Your task to perform on an android device: Add "razer nari" to the cart on amazon, then select checkout. Image 0: 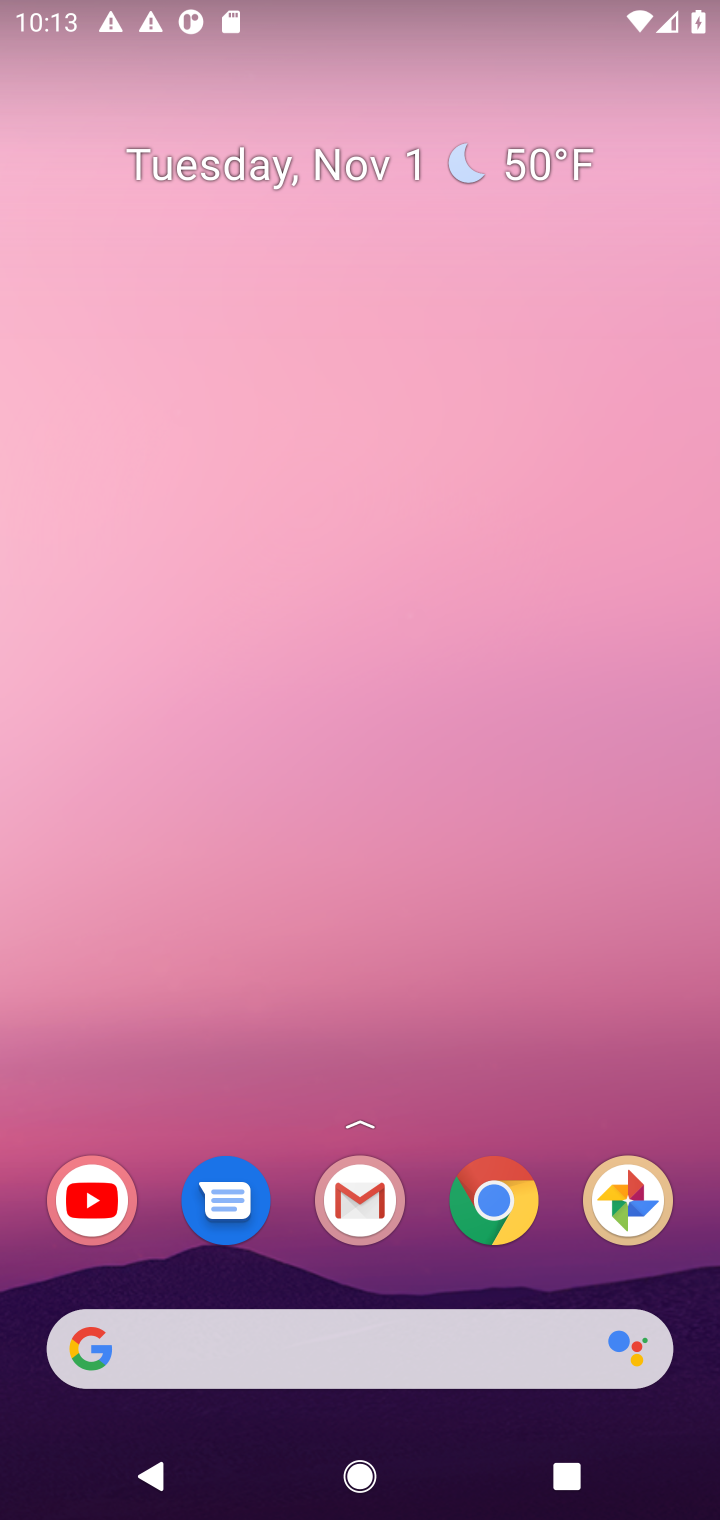
Step 0: click (298, 1366)
Your task to perform on an android device: Add "razer nari" to the cart on amazon, then select checkout. Image 1: 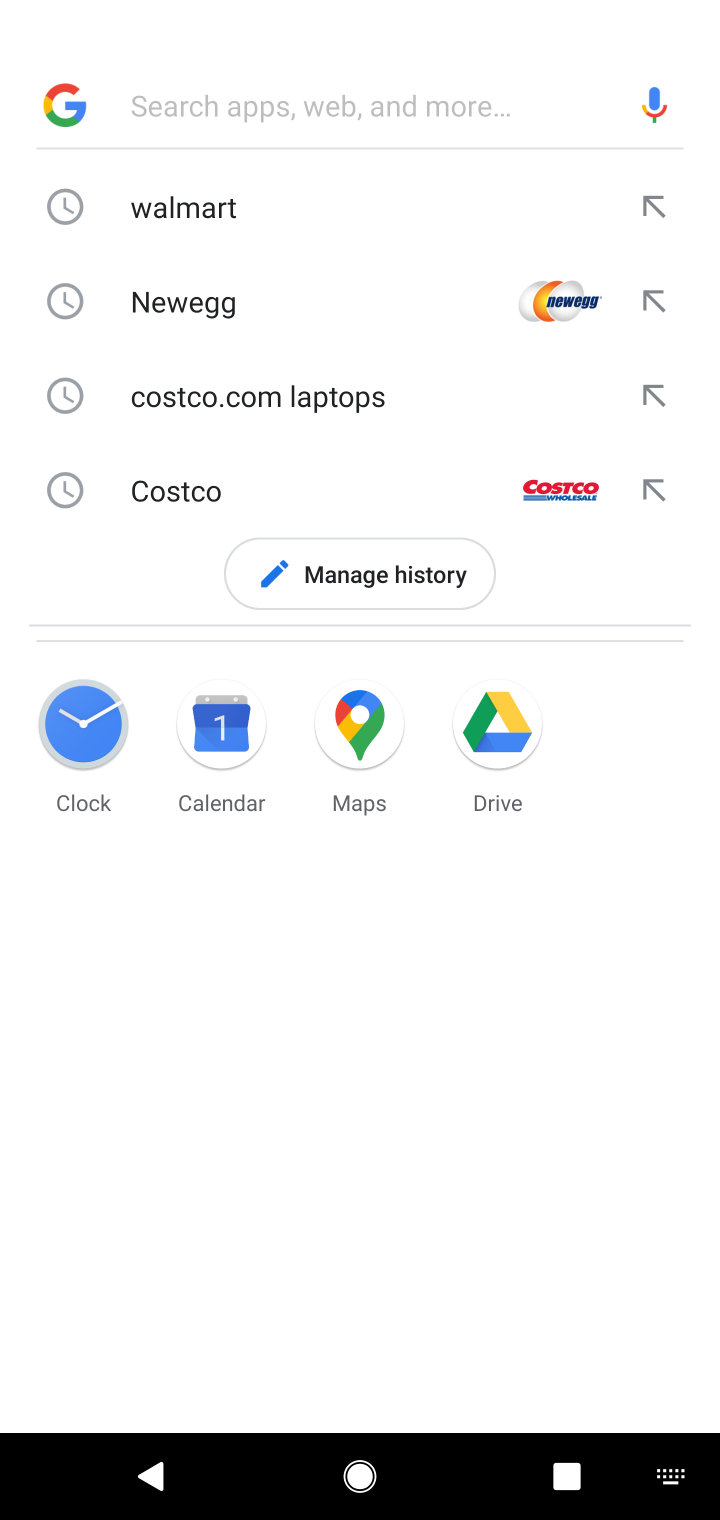
Step 1: type " amazon"
Your task to perform on an android device: Add "razer nari" to the cart on amazon, then select checkout. Image 2: 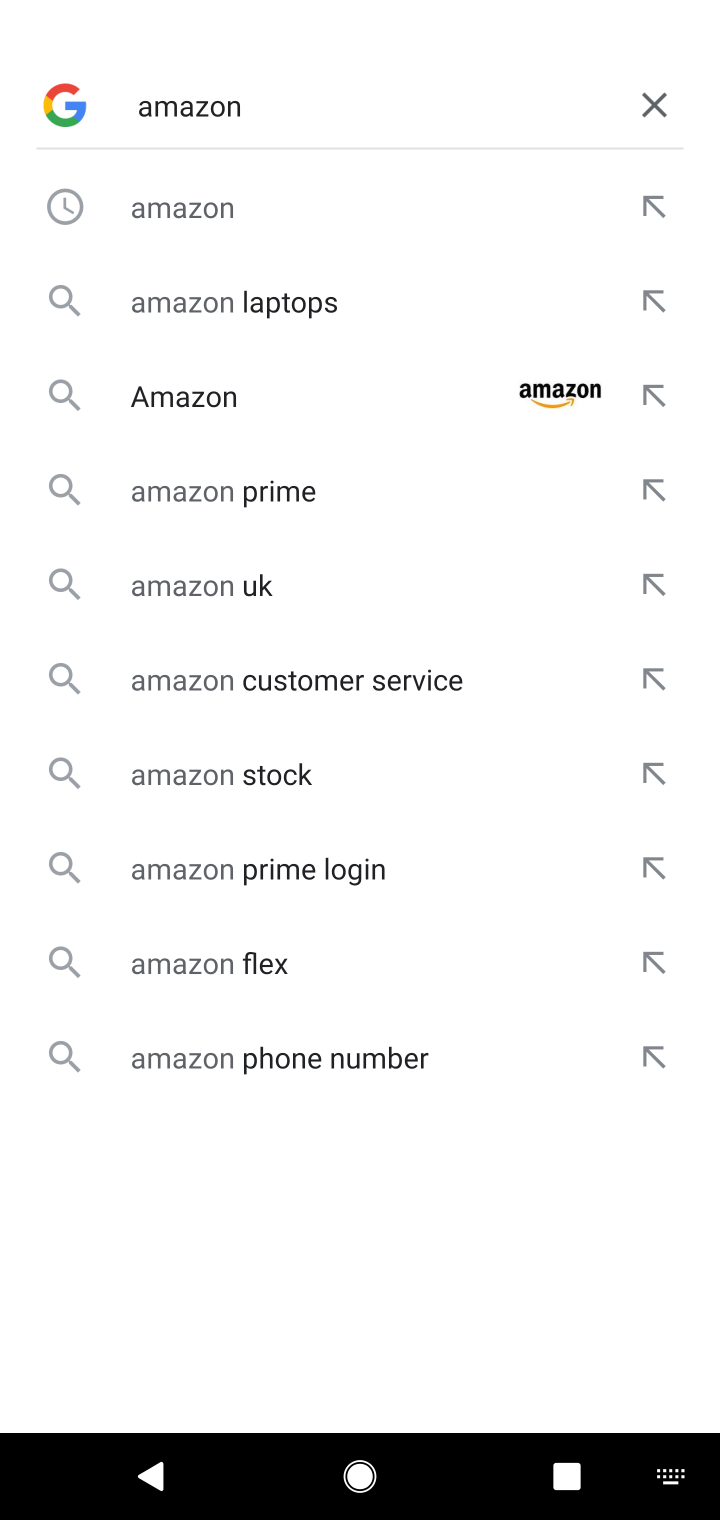
Step 2: type ""
Your task to perform on an android device: Add "razer nari" to the cart on amazon, then select checkout. Image 3: 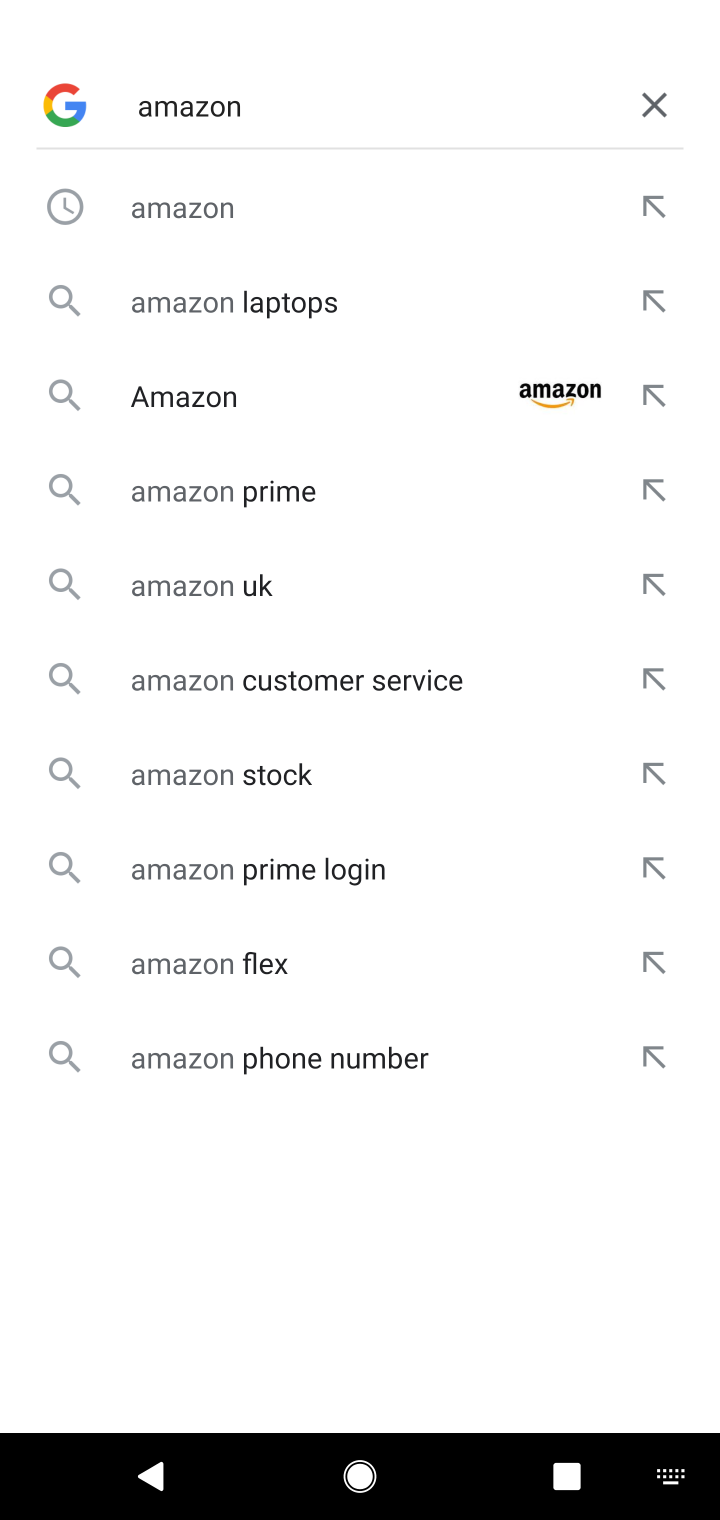
Step 3: click (198, 209)
Your task to perform on an android device: Add "razer nari" to the cart on amazon, then select checkout. Image 4: 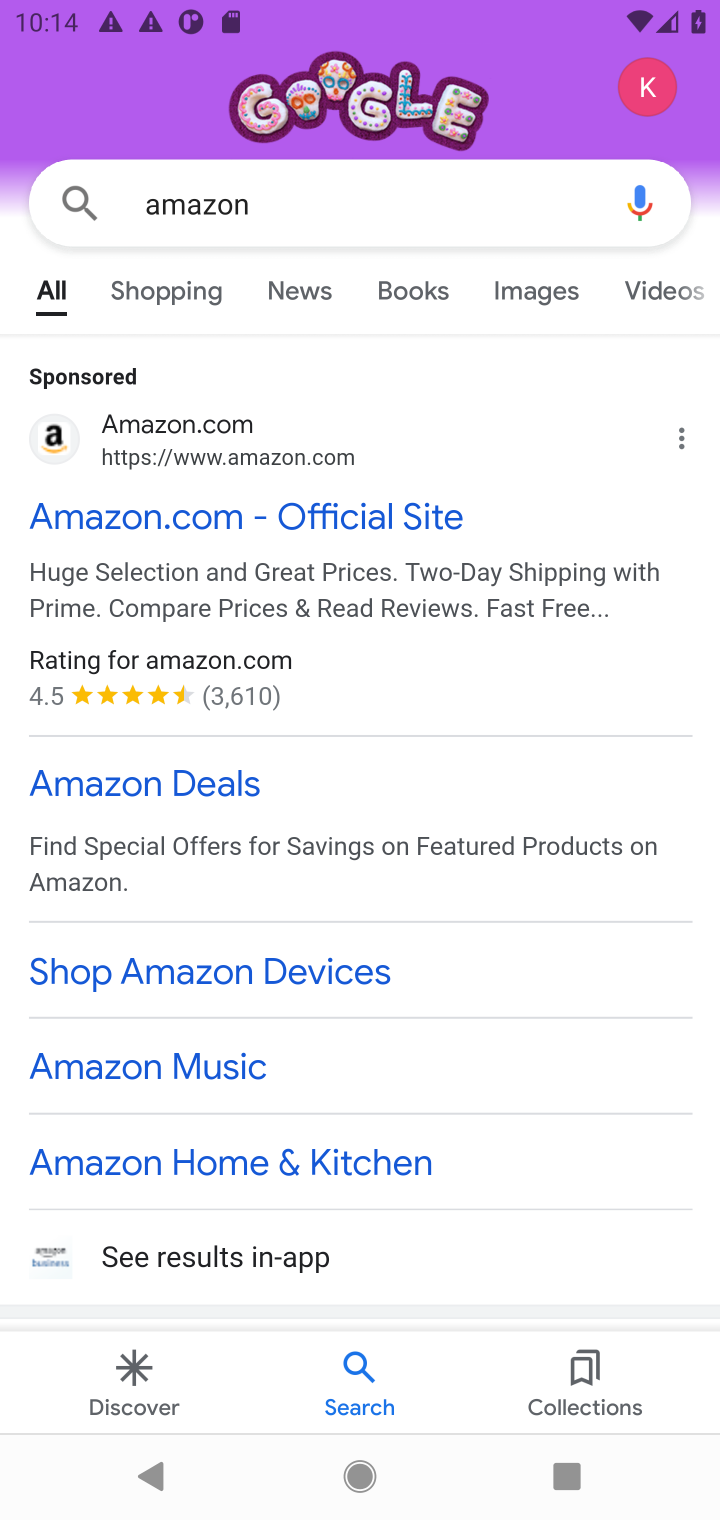
Step 4: click (214, 518)
Your task to perform on an android device: Add "razer nari" to the cart on amazon, then select checkout. Image 5: 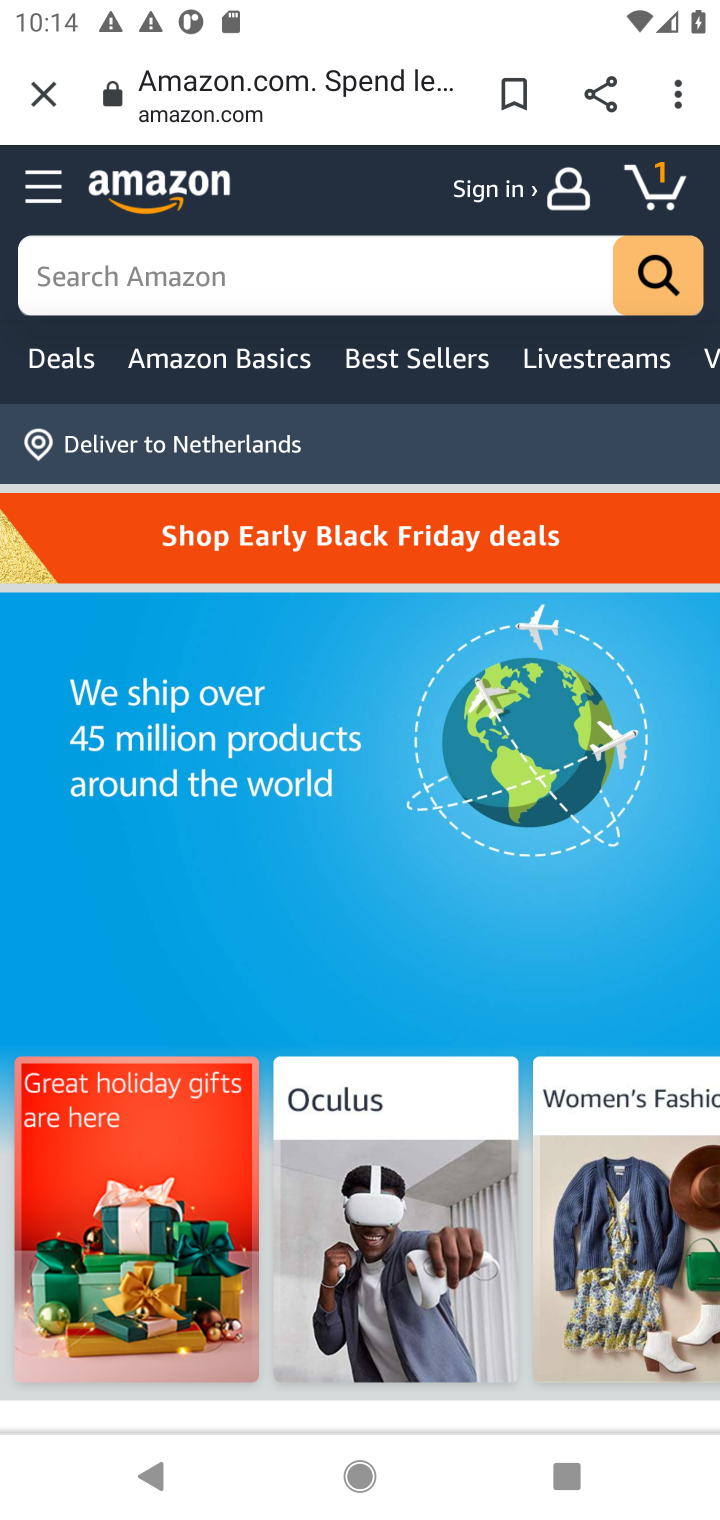
Step 5: click (273, 278)
Your task to perform on an android device: Add "razer nari" to the cart on amazon, then select checkout. Image 6: 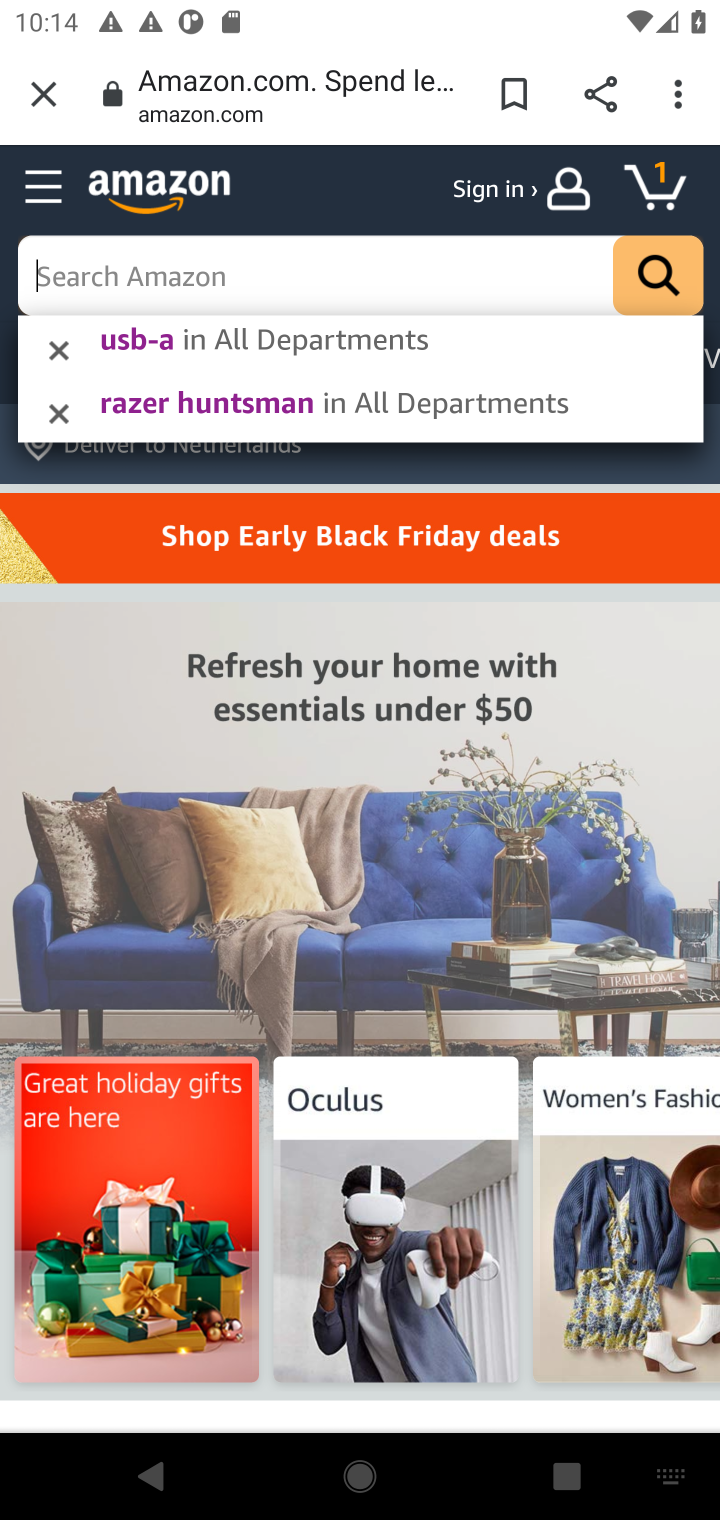
Step 6: type "razer nari"
Your task to perform on an android device: Add "razer nari" to the cart on amazon, then select checkout. Image 7: 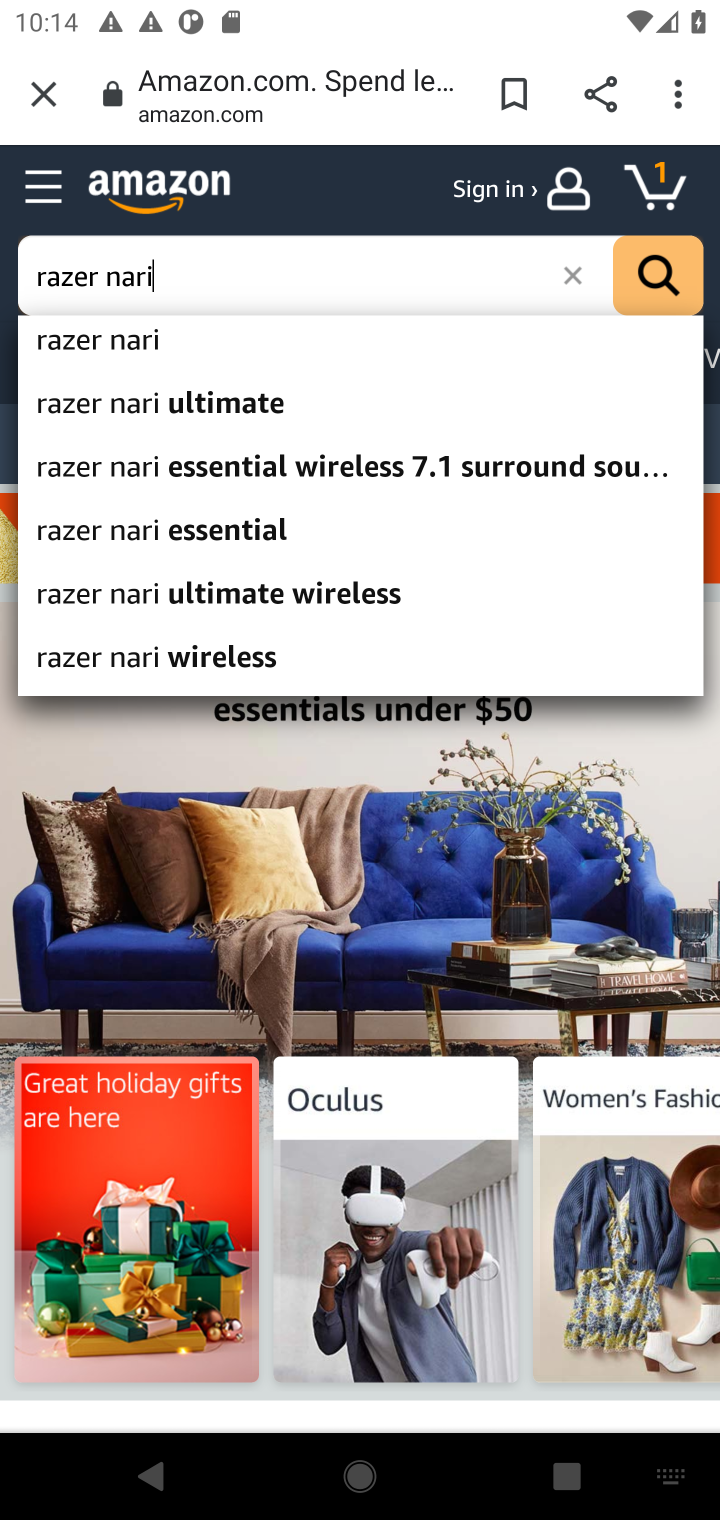
Step 7: click (190, 335)
Your task to perform on an android device: Add "razer nari" to the cart on amazon, then select checkout. Image 8: 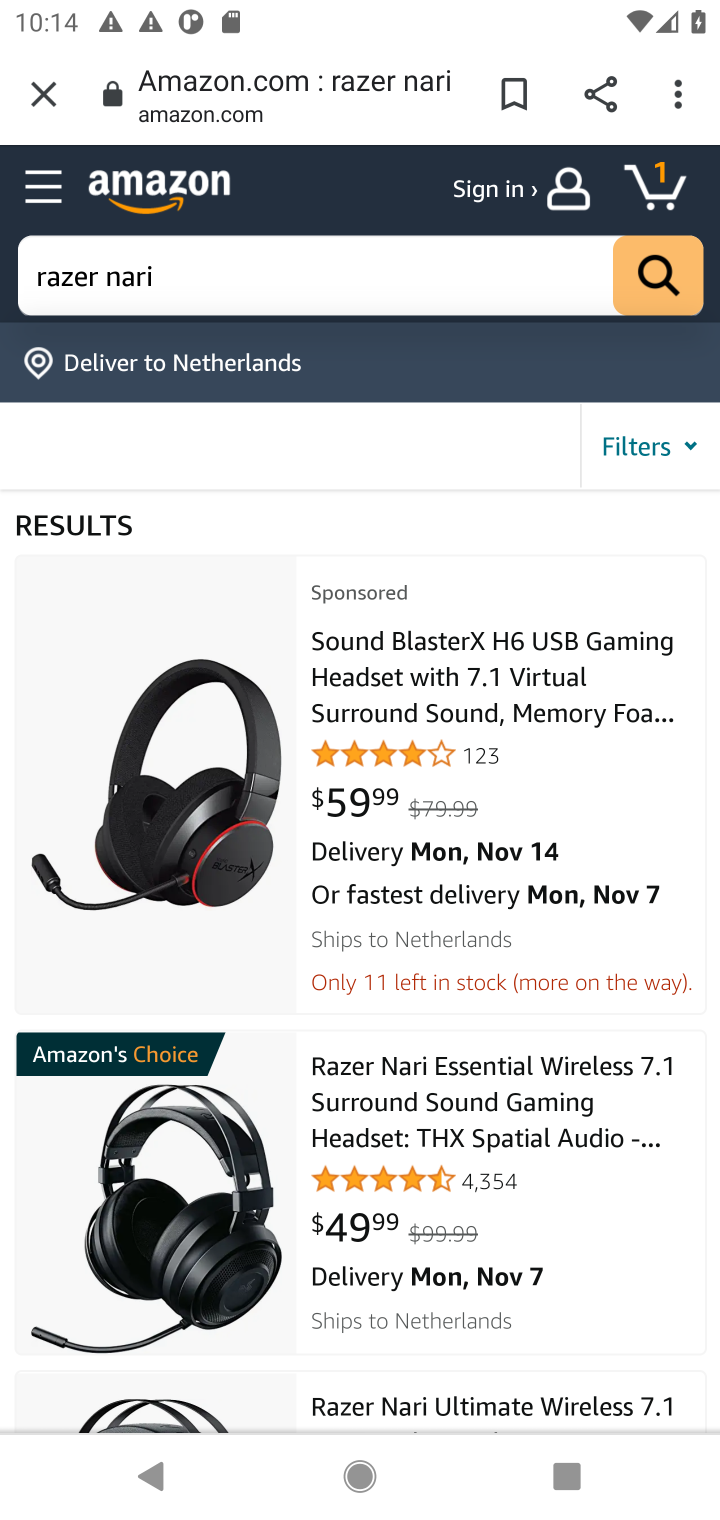
Step 8: click (518, 697)
Your task to perform on an android device: Add "razer nari" to the cart on amazon, then select checkout. Image 9: 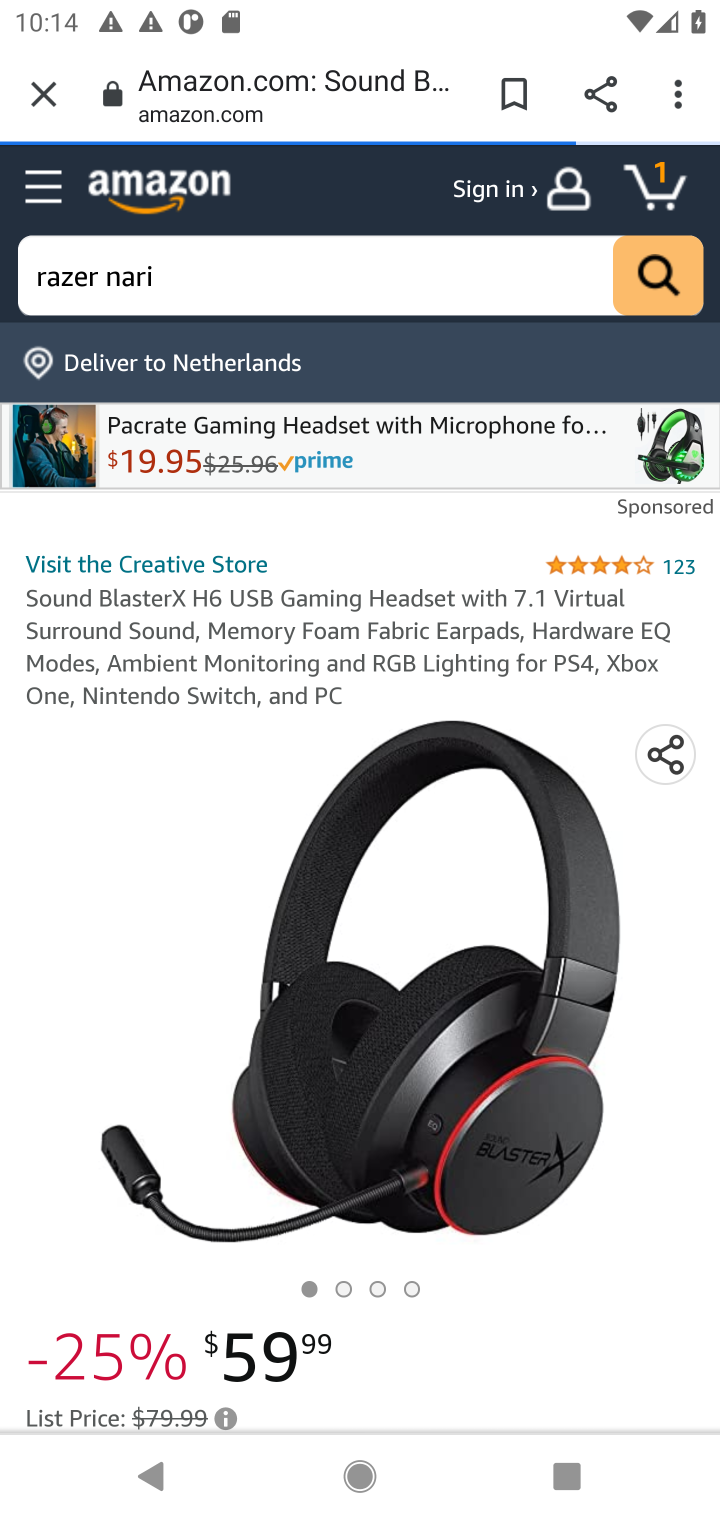
Step 9: drag from (303, 1081) to (342, 695)
Your task to perform on an android device: Add "razer nari" to the cart on amazon, then select checkout. Image 10: 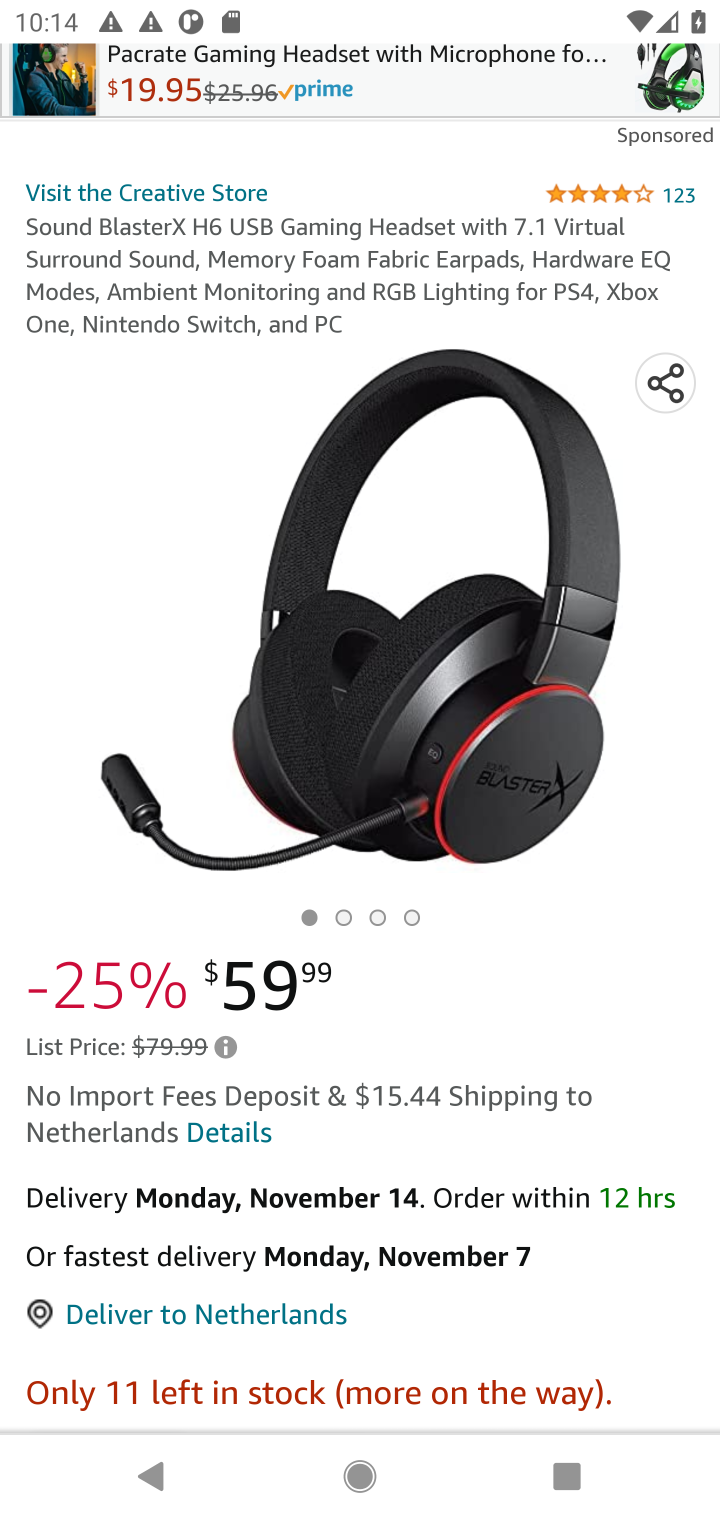
Step 10: drag from (438, 880) to (439, 685)
Your task to perform on an android device: Add "razer nari" to the cart on amazon, then select checkout. Image 11: 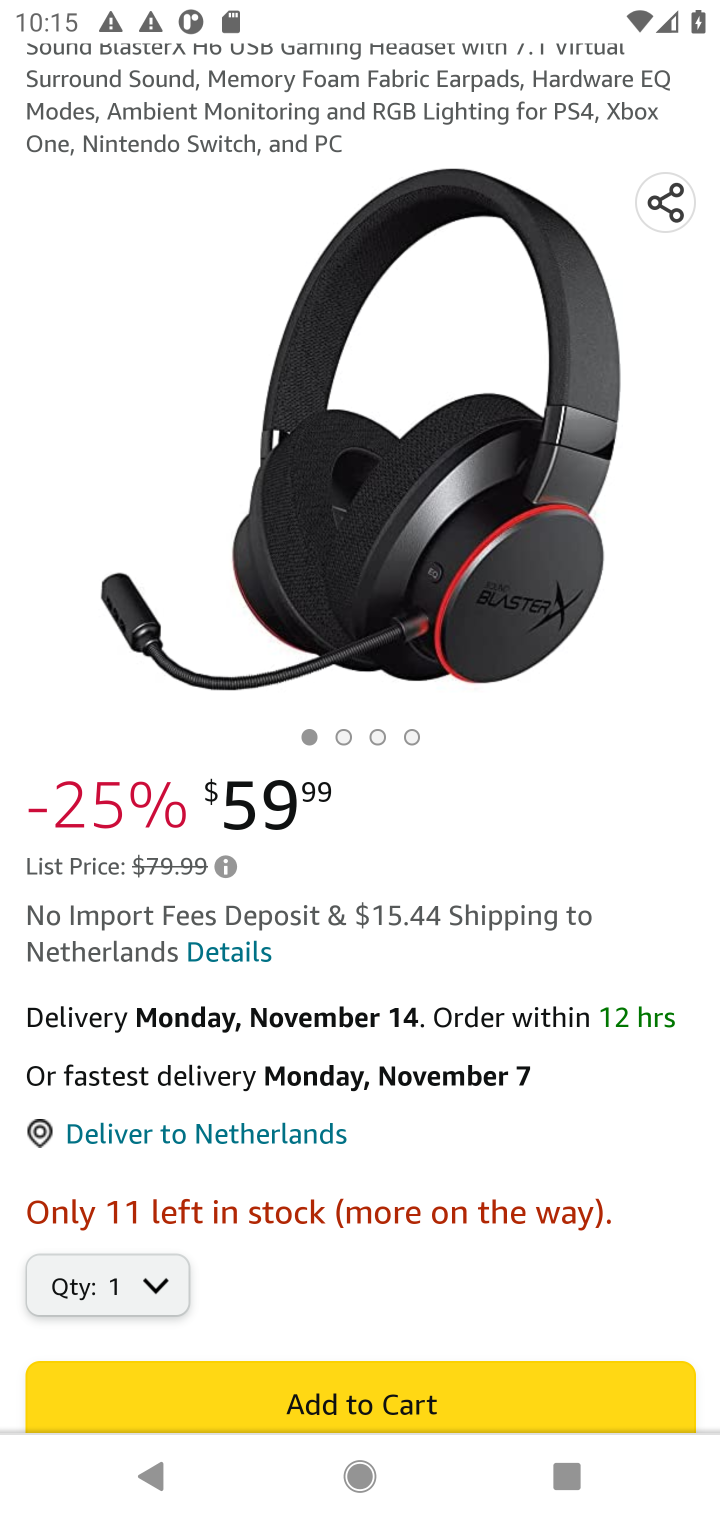
Step 11: drag from (530, 1011) to (512, 491)
Your task to perform on an android device: Add "razer nari" to the cart on amazon, then select checkout. Image 12: 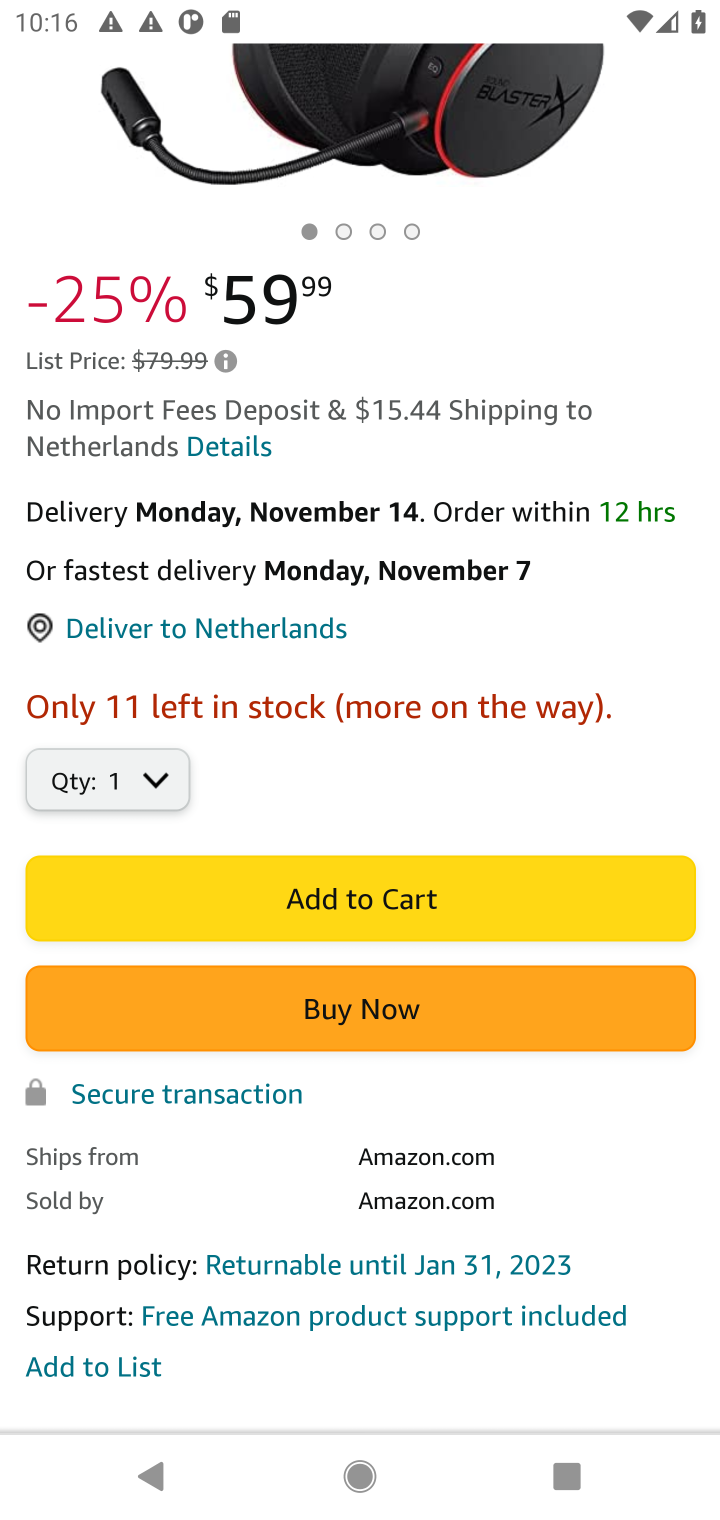
Step 12: click (352, 894)
Your task to perform on an android device: Add "razer nari" to the cart on amazon, then select checkout. Image 13: 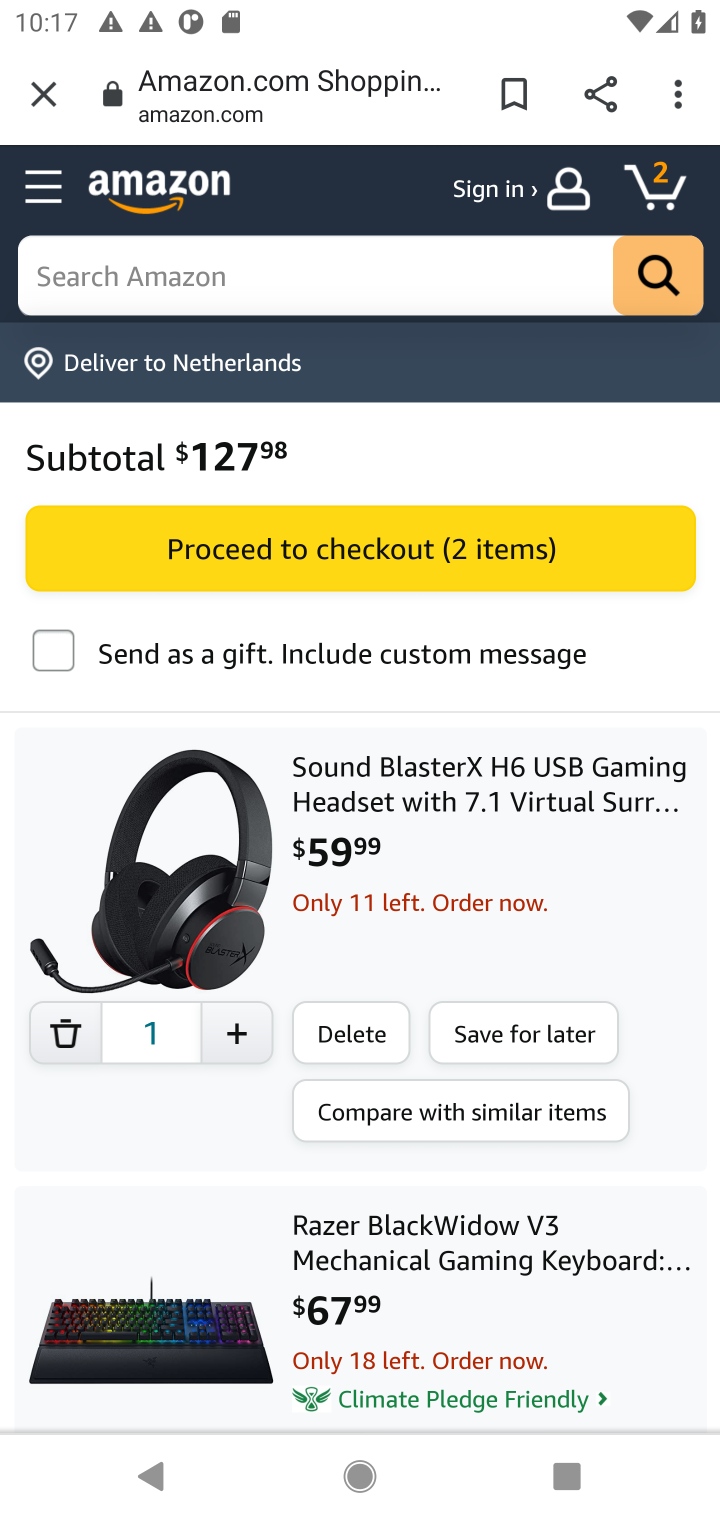
Step 13: drag from (457, 929) to (447, 616)
Your task to perform on an android device: Add "razer nari" to the cart on amazon, then select checkout. Image 14: 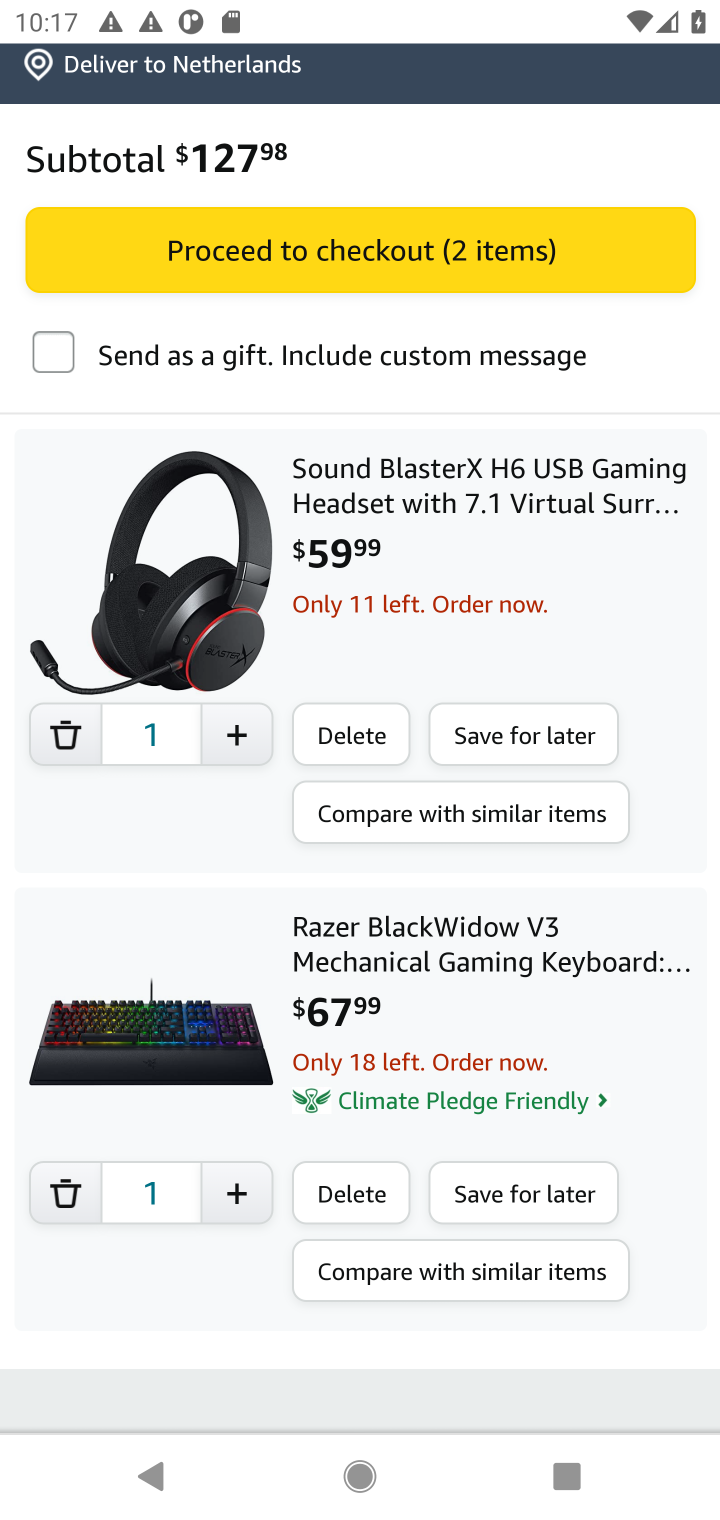
Step 14: drag from (361, 517) to (440, 917)
Your task to perform on an android device: Add "razer nari" to the cart on amazon, then select checkout. Image 15: 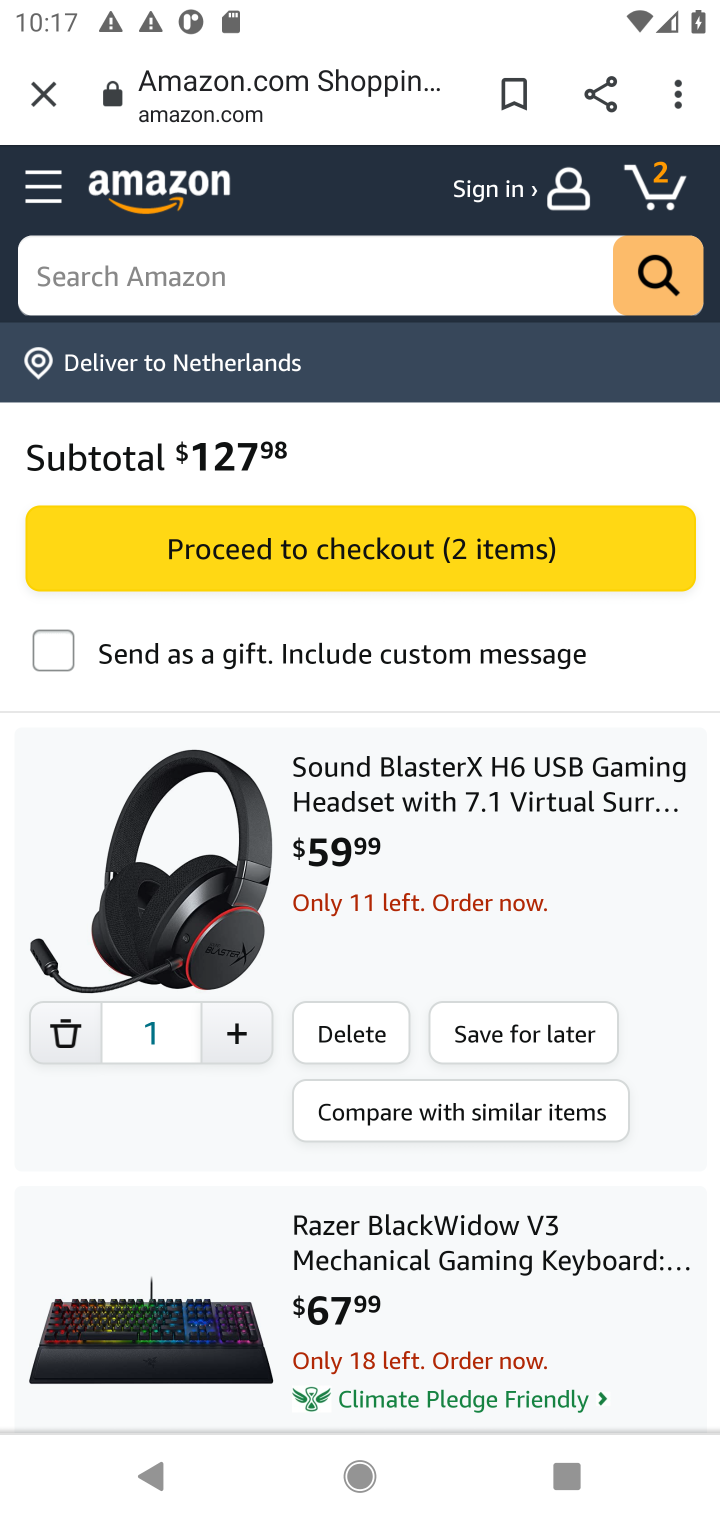
Step 15: click (288, 303)
Your task to perform on an android device: Add "razer nari" to the cart on amazon, then select checkout. Image 16: 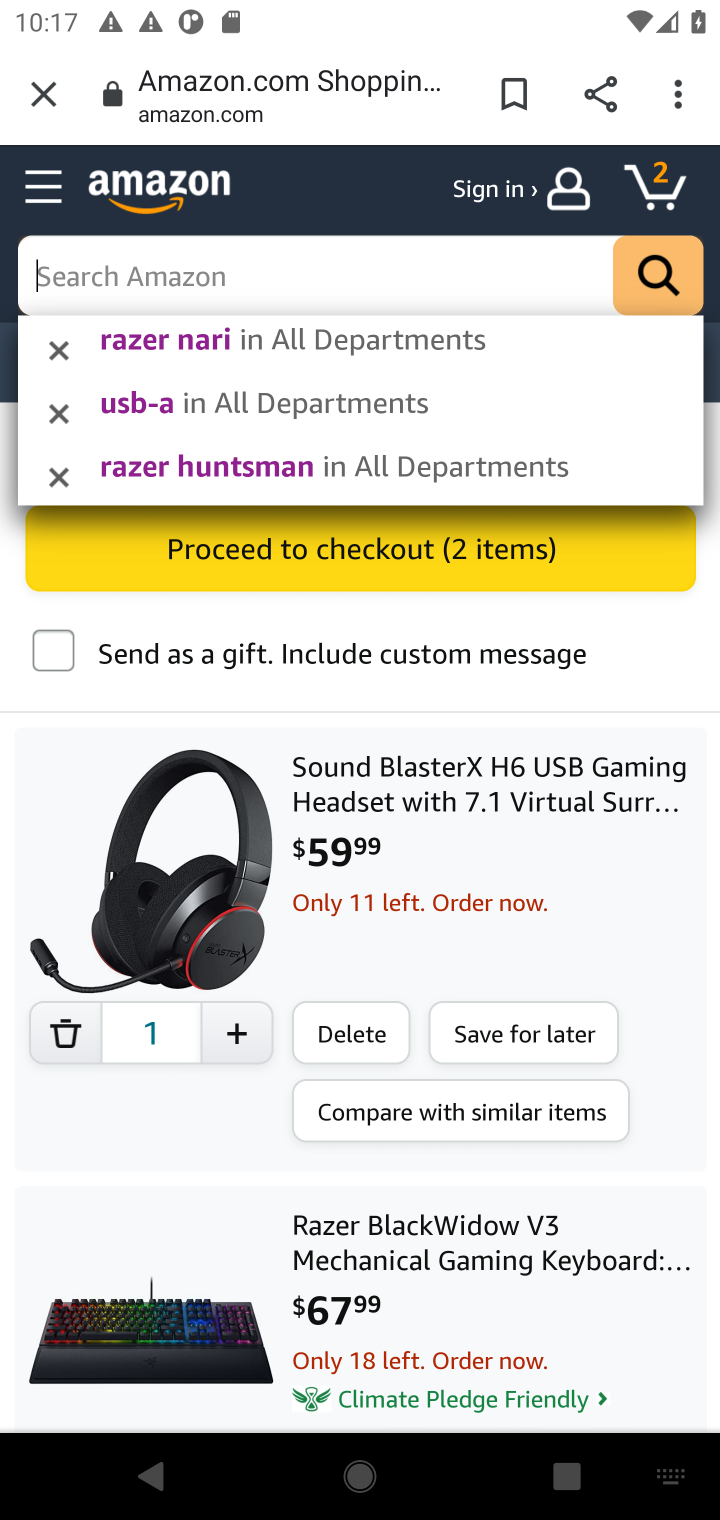
Step 16: type "razer nari"
Your task to perform on an android device: Add "razer nari" to the cart on amazon, then select checkout. Image 17: 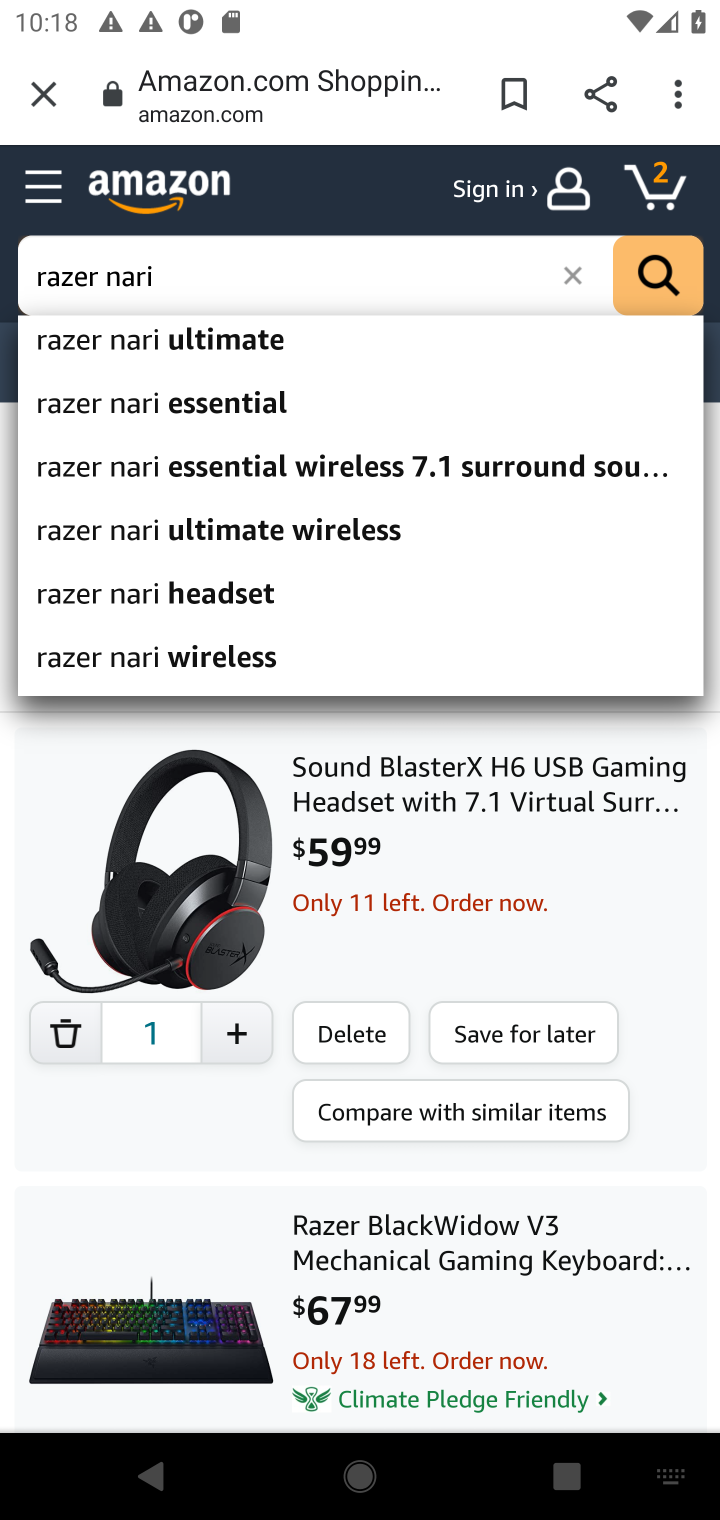
Step 17: click (630, 281)
Your task to perform on an android device: Add "razer nari" to the cart on amazon, then select checkout. Image 18: 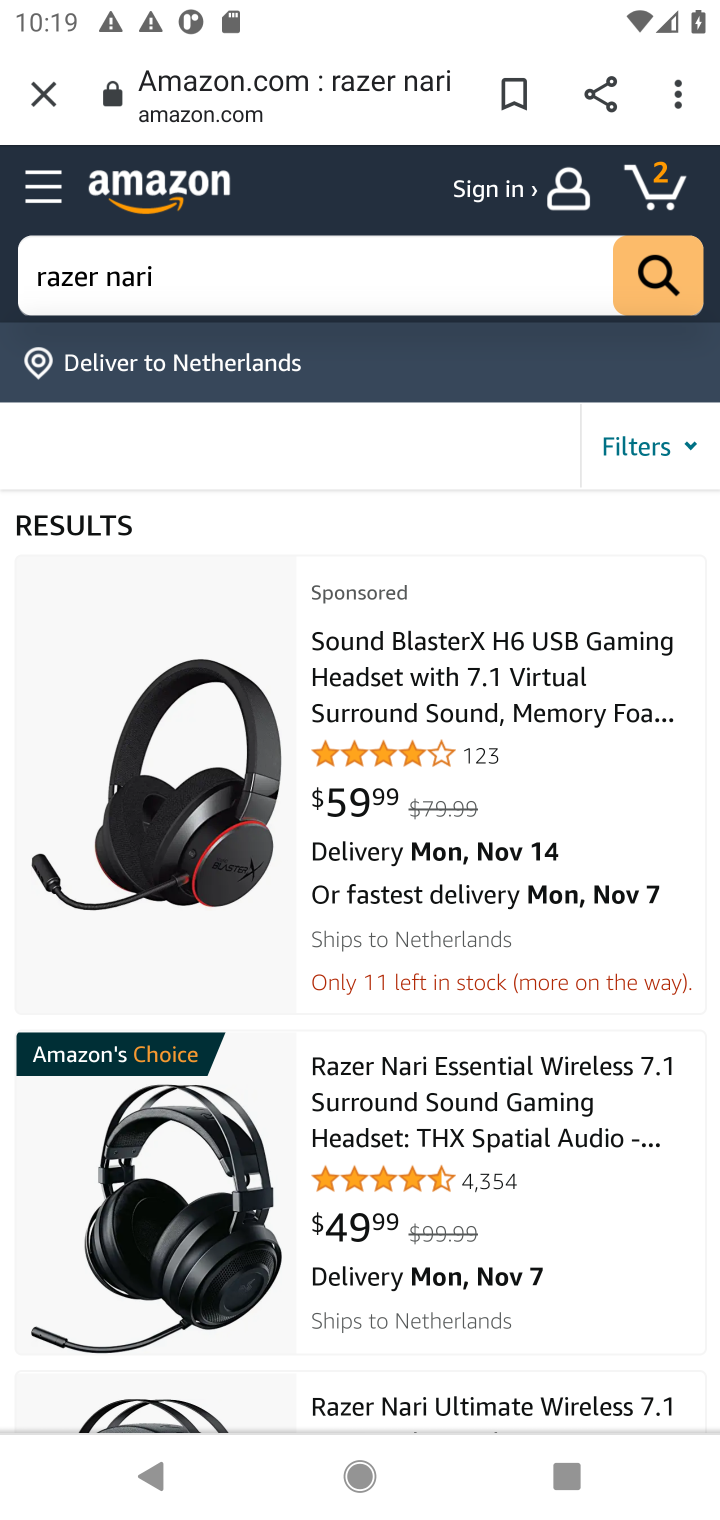
Step 18: click (489, 702)
Your task to perform on an android device: Add "razer nari" to the cart on amazon, then select checkout. Image 19: 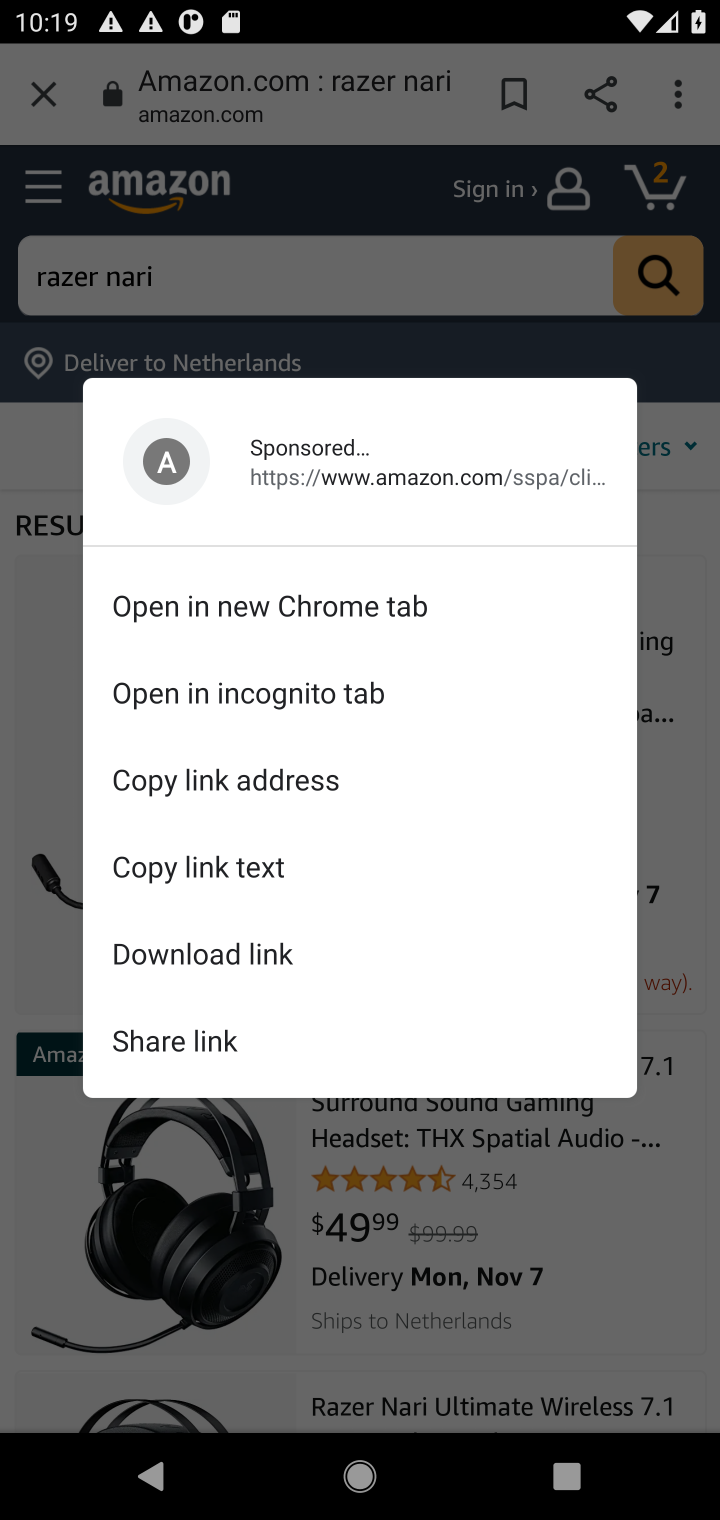
Step 19: click (646, 1251)
Your task to perform on an android device: Add "razer nari" to the cart on amazon, then select checkout. Image 20: 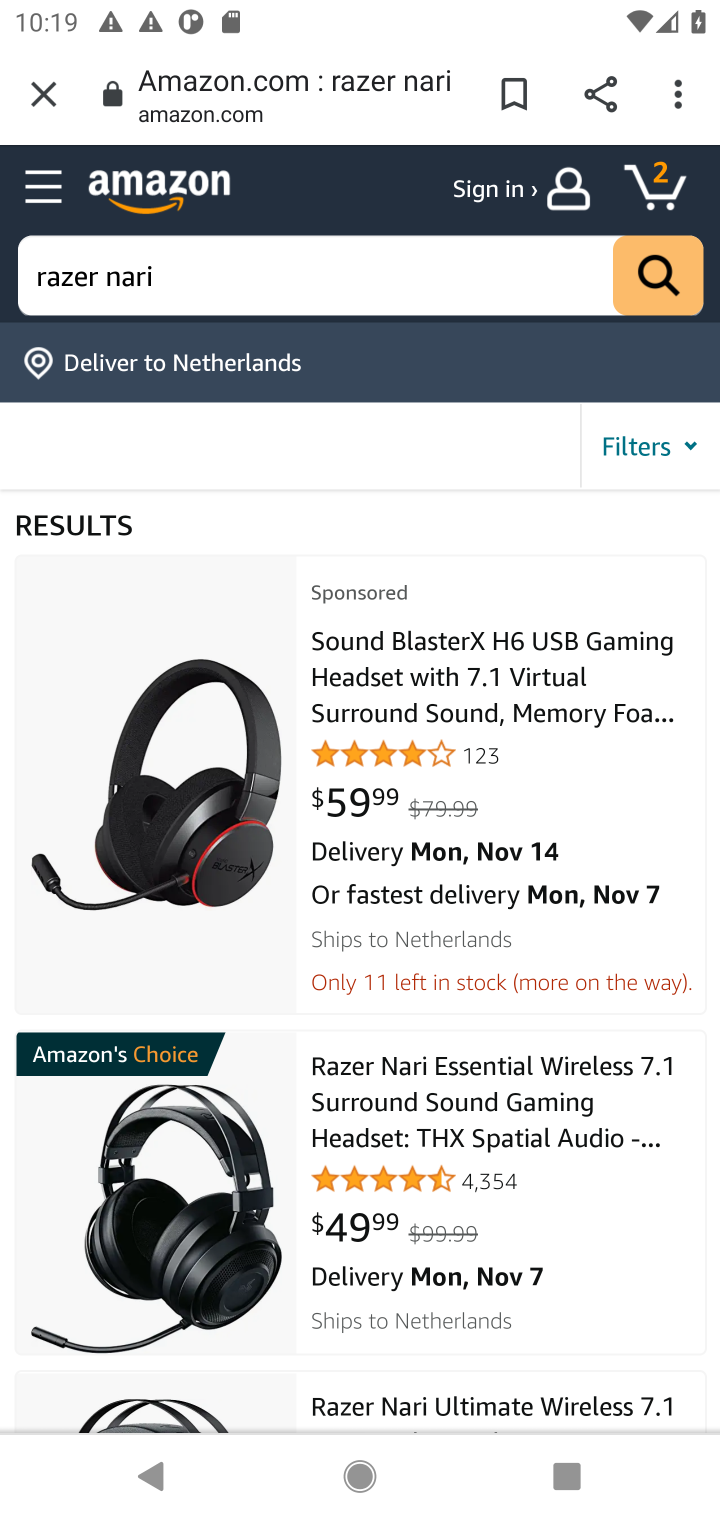
Step 20: click (642, 647)
Your task to perform on an android device: Add "razer nari" to the cart on amazon, then select checkout. Image 21: 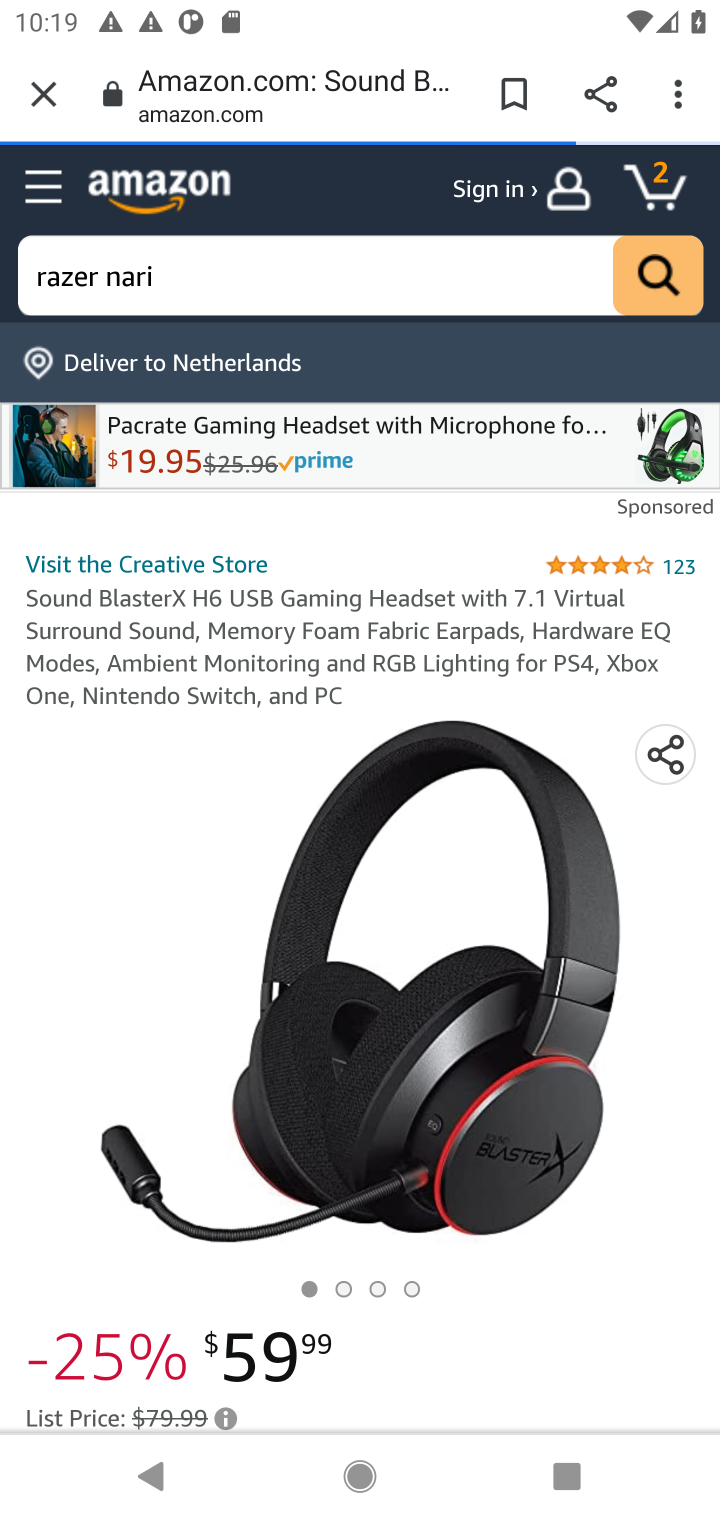
Step 21: drag from (599, 996) to (559, 601)
Your task to perform on an android device: Add "razer nari" to the cart on amazon, then select checkout. Image 22: 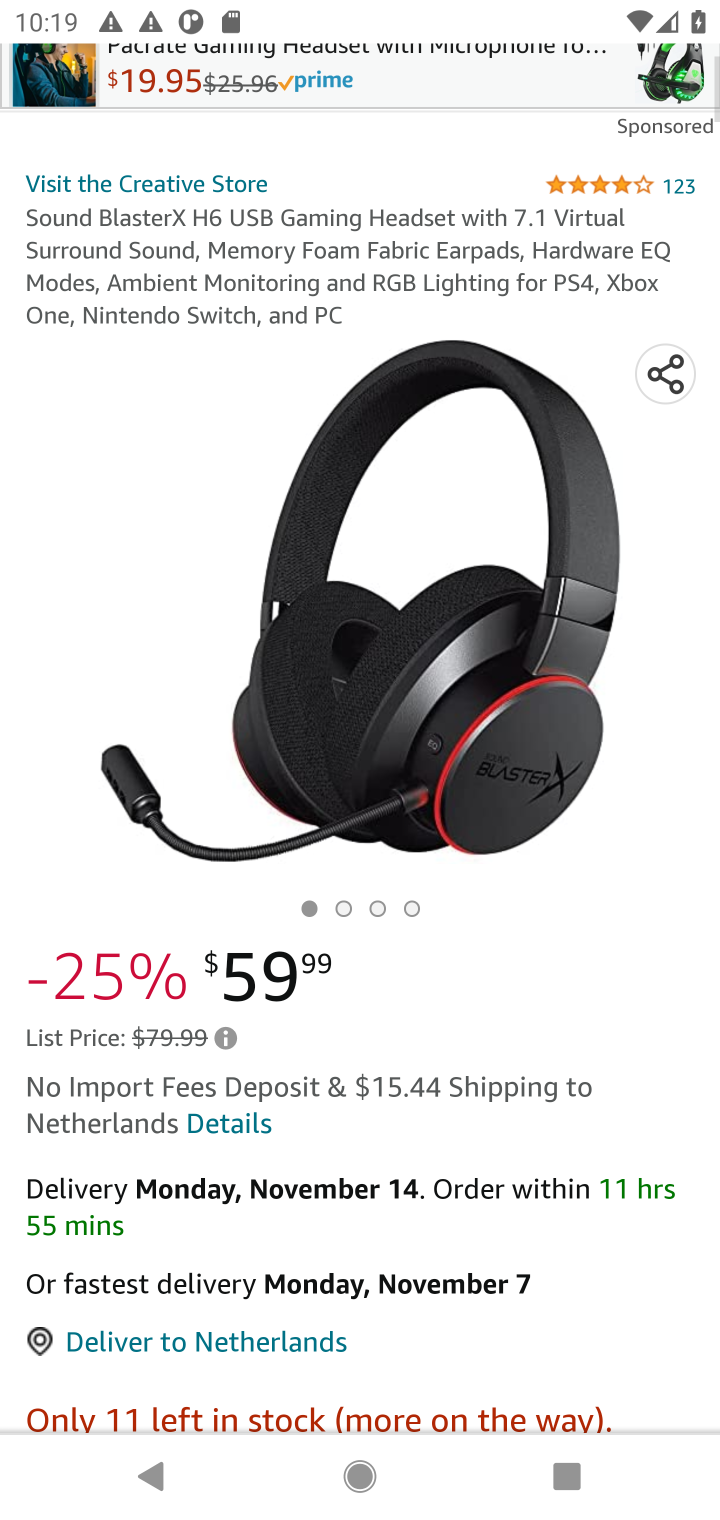
Step 22: drag from (487, 897) to (463, 499)
Your task to perform on an android device: Add "razer nari" to the cart on amazon, then select checkout. Image 23: 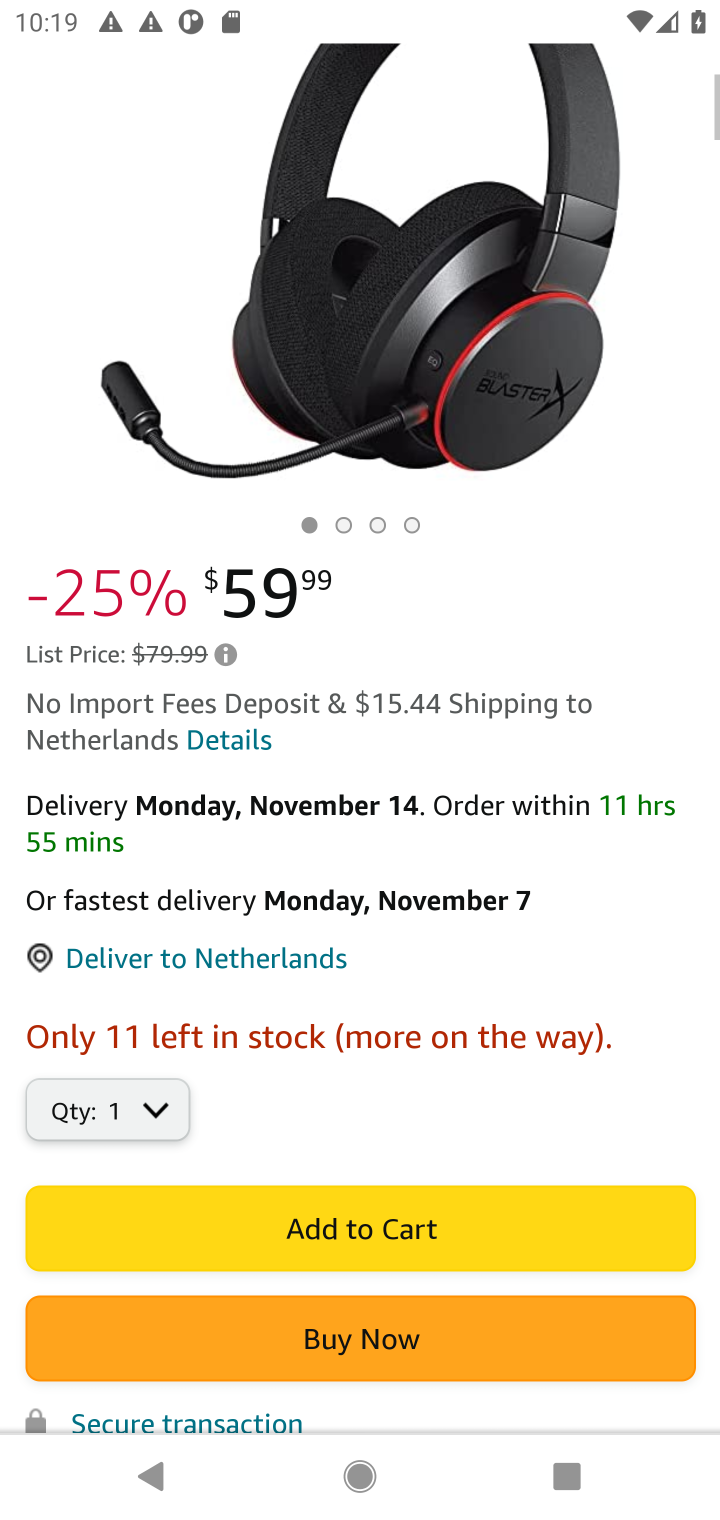
Step 23: drag from (414, 676) to (422, 465)
Your task to perform on an android device: Add "razer nari" to the cart on amazon, then select checkout. Image 24: 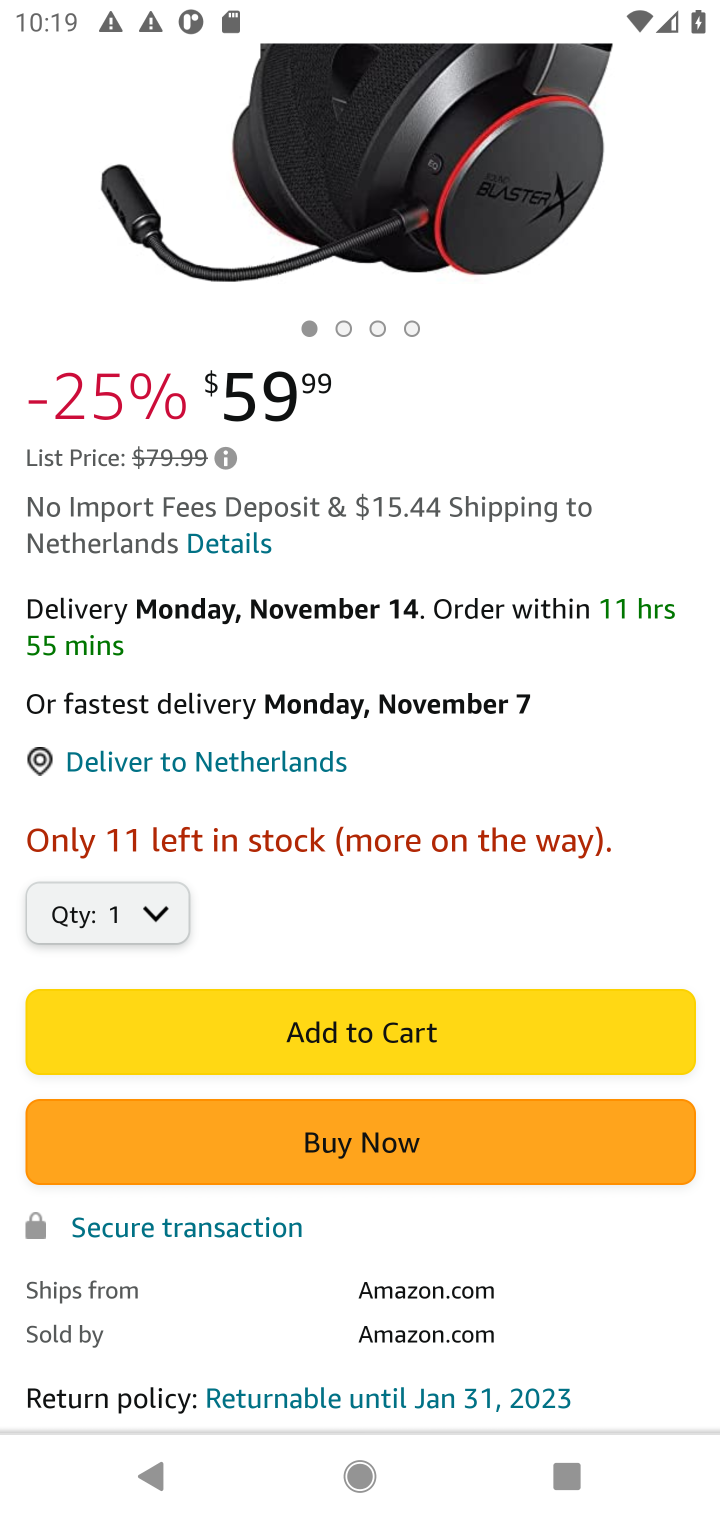
Step 24: click (176, 1049)
Your task to perform on an android device: Add "razer nari" to the cart on amazon, then select checkout. Image 25: 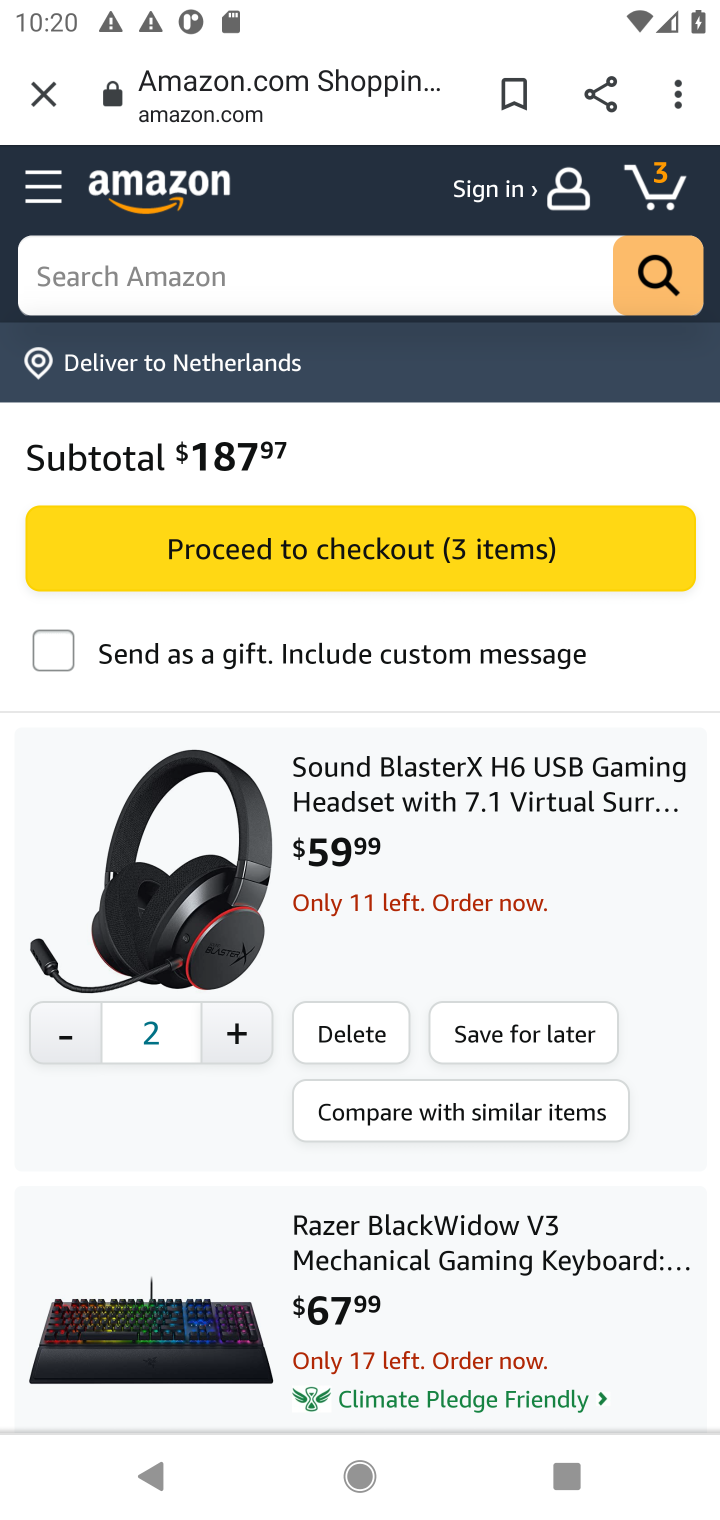
Step 25: task complete